Your task to perform on an android device: turn off location Image 0: 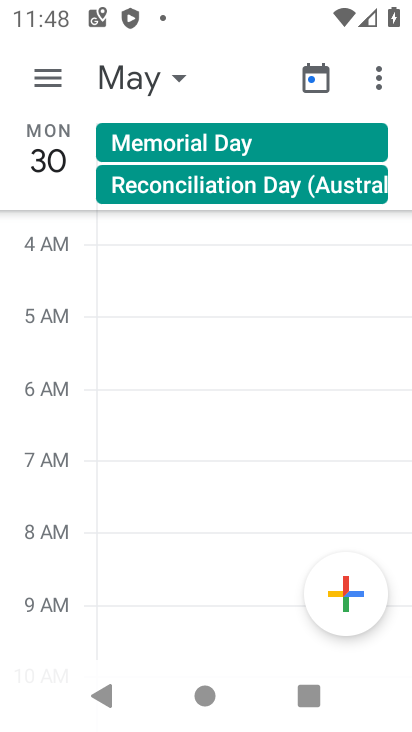
Step 0: press home button
Your task to perform on an android device: turn off location Image 1: 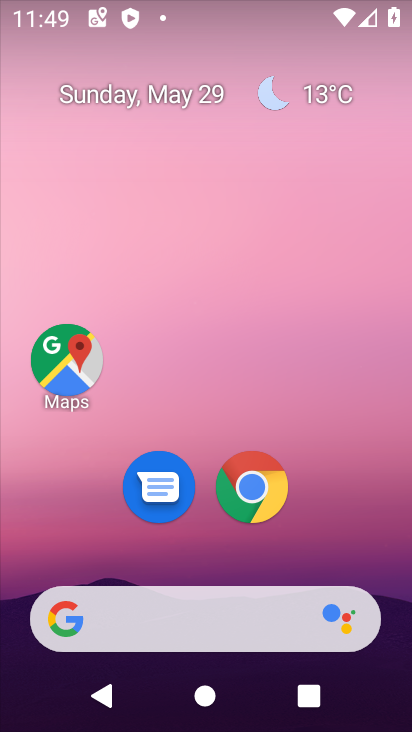
Step 1: drag from (377, 498) to (346, 27)
Your task to perform on an android device: turn off location Image 2: 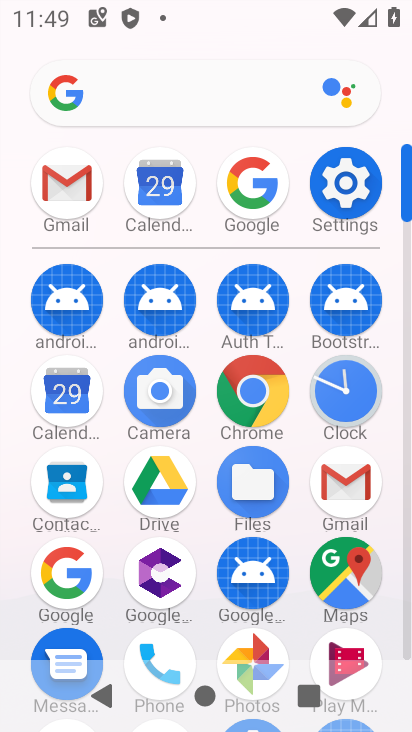
Step 2: click (338, 185)
Your task to perform on an android device: turn off location Image 3: 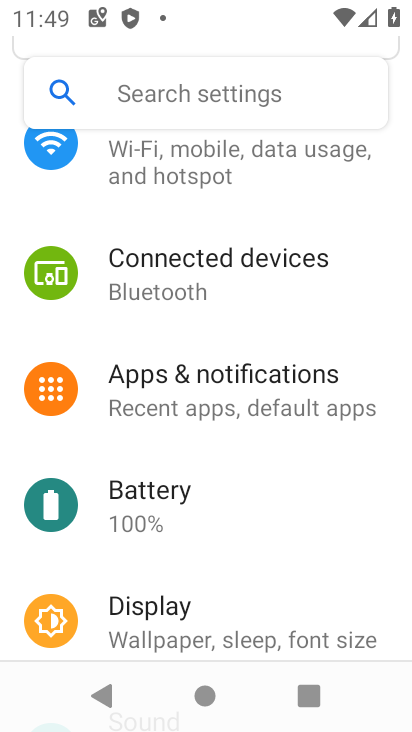
Step 3: drag from (297, 582) to (278, 237)
Your task to perform on an android device: turn off location Image 4: 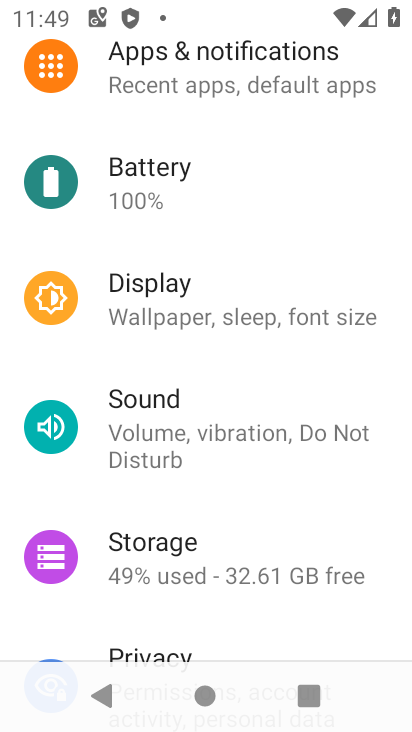
Step 4: drag from (257, 628) to (276, 270)
Your task to perform on an android device: turn off location Image 5: 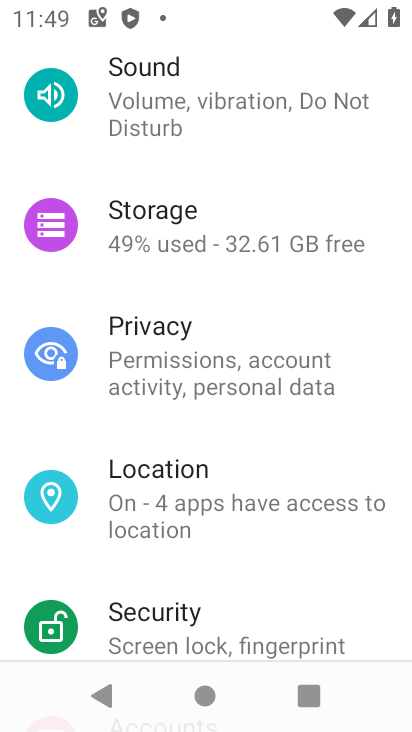
Step 5: click (269, 495)
Your task to perform on an android device: turn off location Image 6: 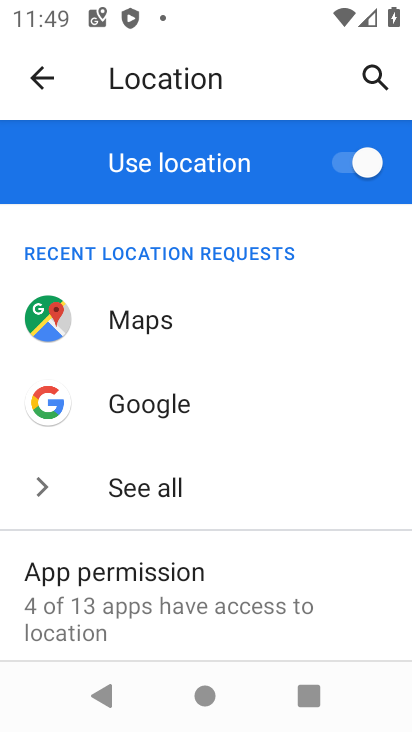
Step 6: drag from (284, 599) to (292, 350)
Your task to perform on an android device: turn off location Image 7: 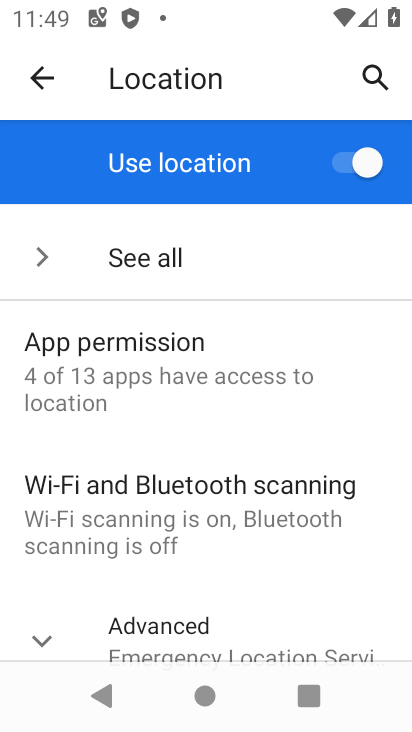
Step 7: click (369, 161)
Your task to perform on an android device: turn off location Image 8: 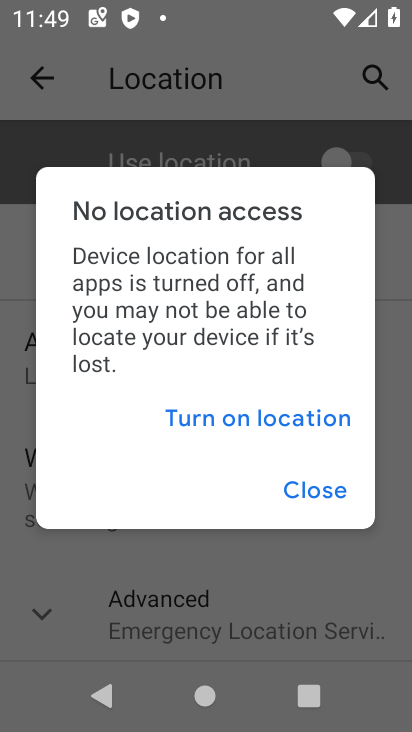
Step 8: click (303, 489)
Your task to perform on an android device: turn off location Image 9: 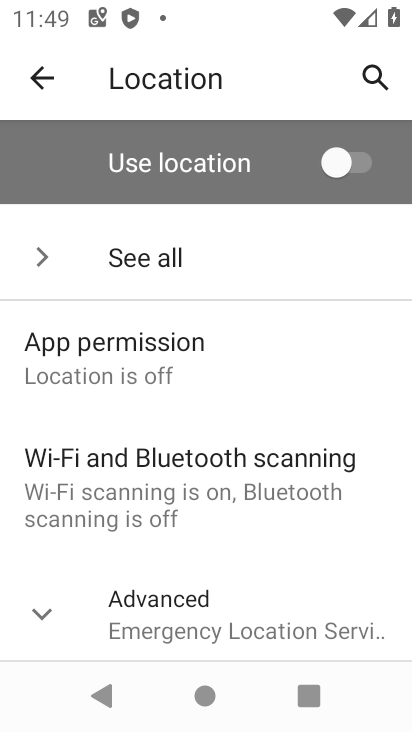
Step 9: task complete